Your task to perform on an android device: Search for Italian restaurants on Maps Image 0: 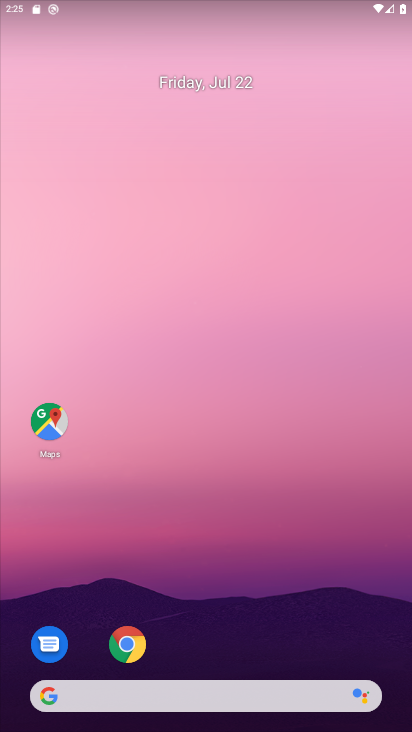
Step 0: drag from (278, 657) to (277, 152)
Your task to perform on an android device: Search for Italian restaurants on Maps Image 1: 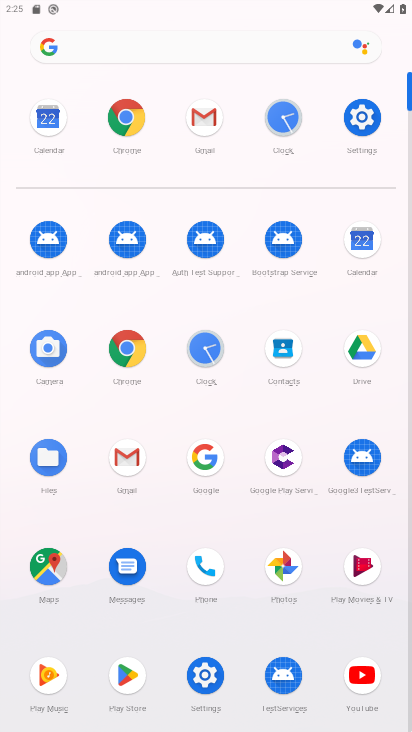
Step 1: click (52, 553)
Your task to perform on an android device: Search for Italian restaurants on Maps Image 2: 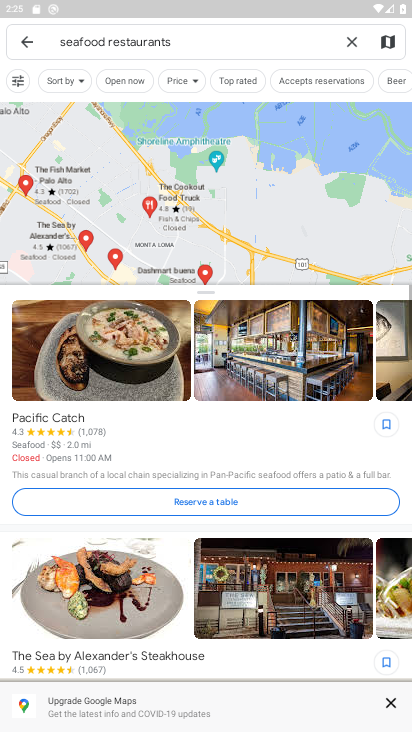
Step 2: click (350, 42)
Your task to perform on an android device: Search for Italian restaurants on Maps Image 3: 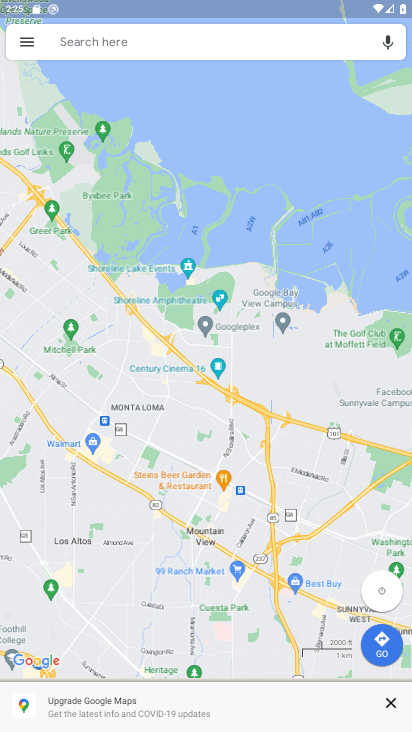
Step 3: click (144, 36)
Your task to perform on an android device: Search for Italian restaurants on Maps Image 4: 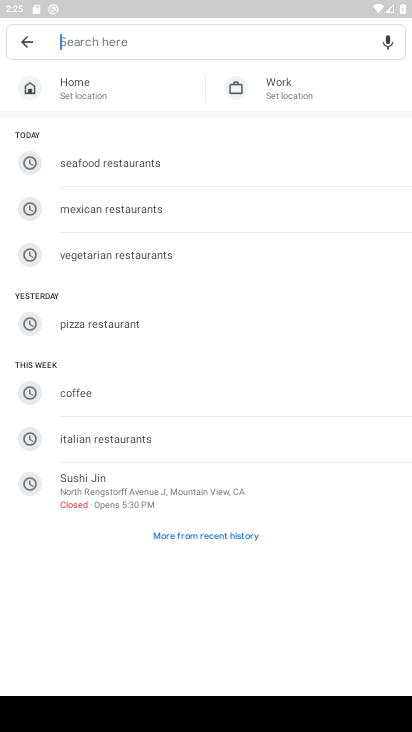
Step 4: click (120, 426)
Your task to perform on an android device: Search for Italian restaurants on Maps Image 5: 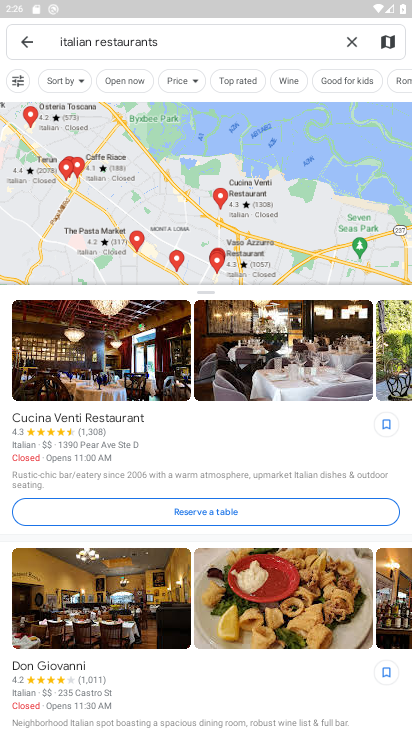
Step 5: task complete